Your task to perform on an android device: What's on my calendar tomorrow? Image 0: 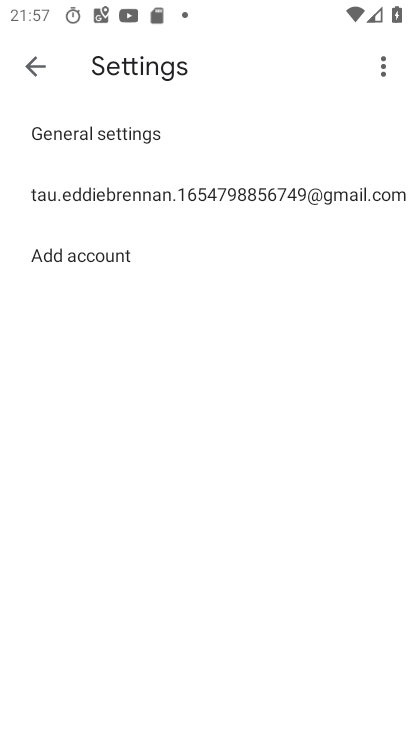
Step 0: press home button
Your task to perform on an android device: What's on my calendar tomorrow? Image 1: 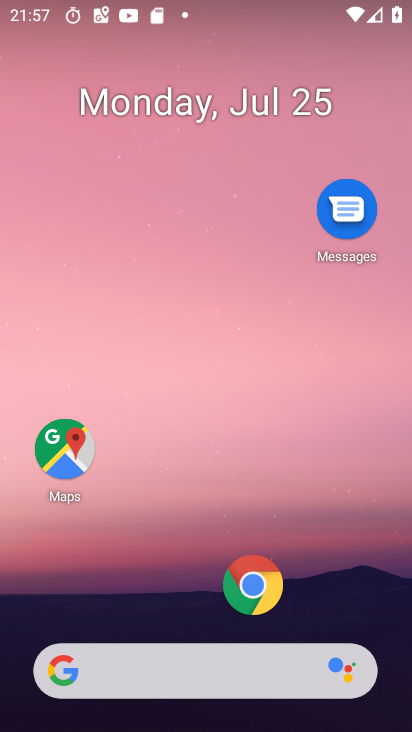
Step 1: drag from (150, 672) to (182, 128)
Your task to perform on an android device: What's on my calendar tomorrow? Image 2: 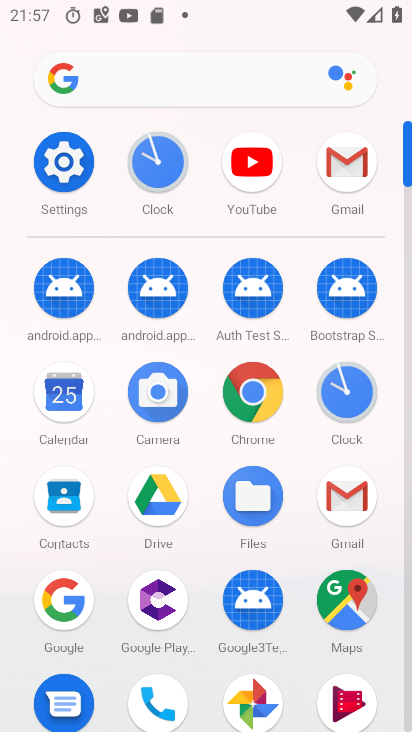
Step 2: click (63, 394)
Your task to perform on an android device: What's on my calendar tomorrow? Image 3: 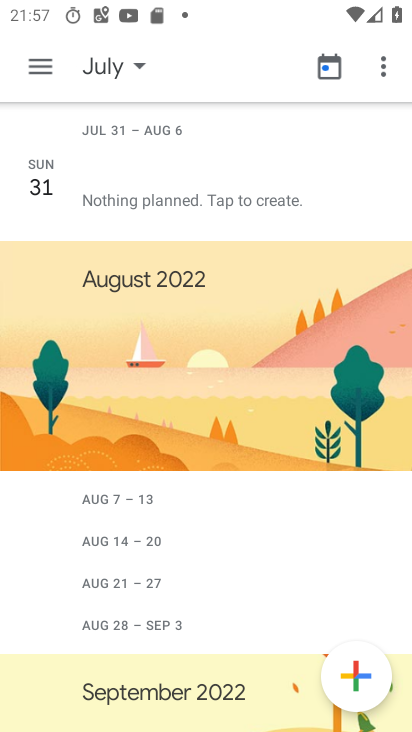
Step 3: click (107, 66)
Your task to perform on an android device: What's on my calendar tomorrow? Image 4: 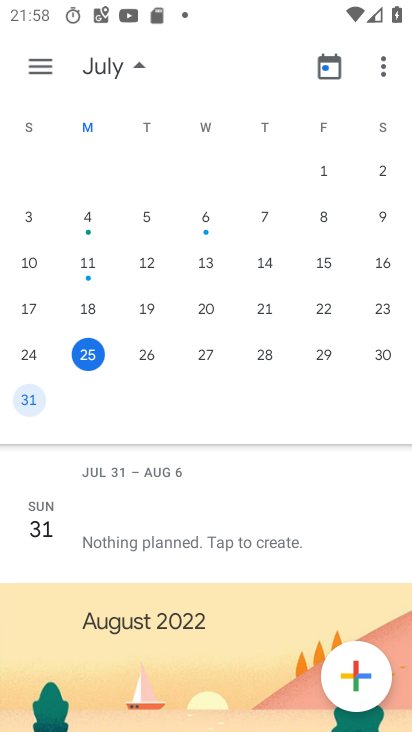
Step 4: click (145, 357)
Your task to perform on an android device: What's on my calendar tomorrow? Image 5: 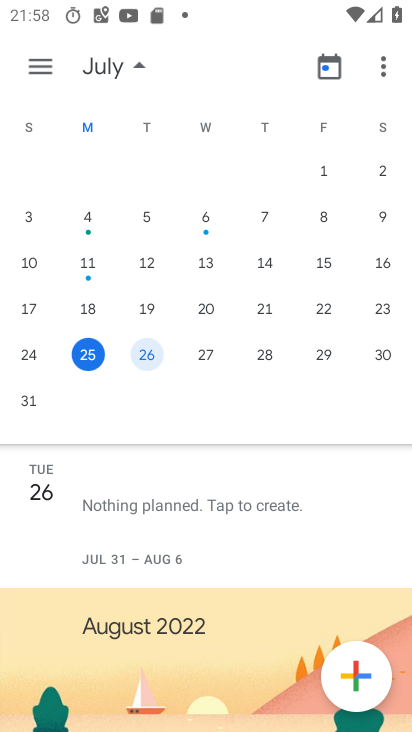
Step 5: click (44, 64)
Your task to perform on an android device: What's on my calendar tomorrow? Image 6: 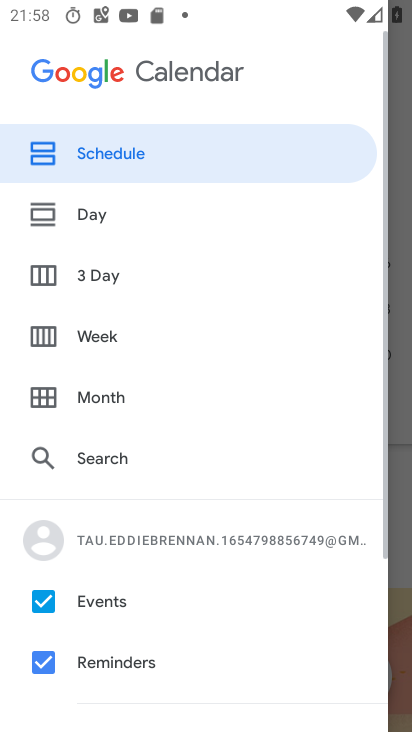
Step 6: click (85, 214)
Your task to perform on an android device: What's on my calendar tomorrow? Image 7: 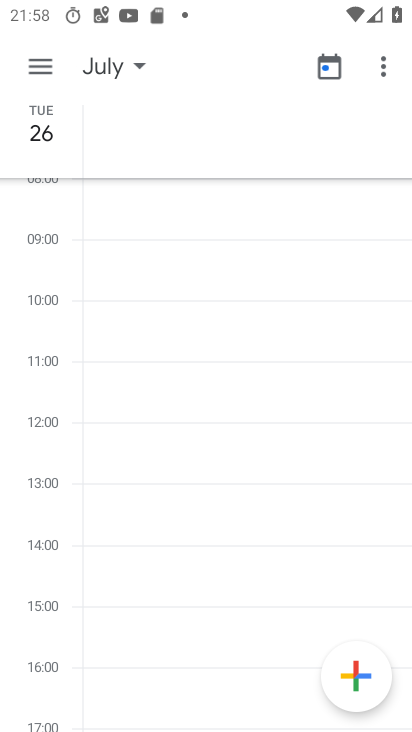
Step 7: click (45, 58)
Your task to perform on an android device: What's on my calendar tomorrow? Image 8: 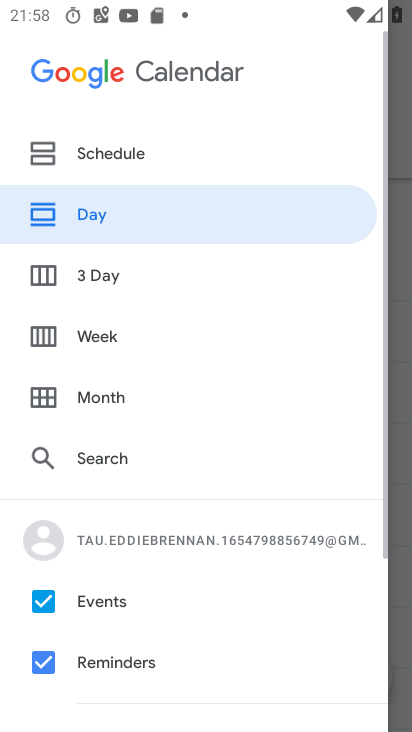
Step 8: click (122, 156)
Your task to perform on an android device: What's on my calendar tomorrow? Image 9: 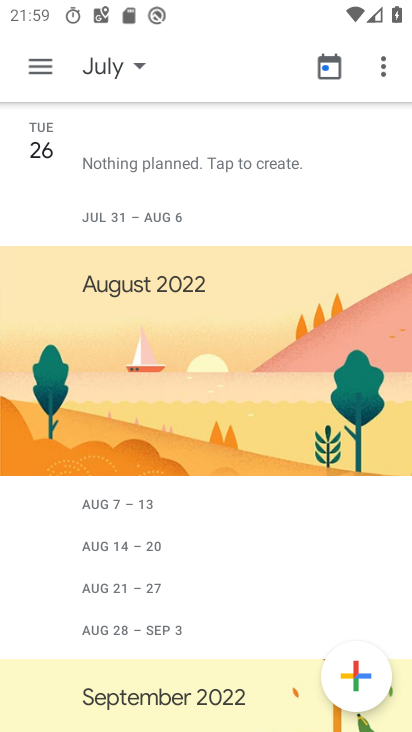
Step 9: task complete